Your task to perform on an android device: Search for seafood restaurants on Google Maps Image 0: 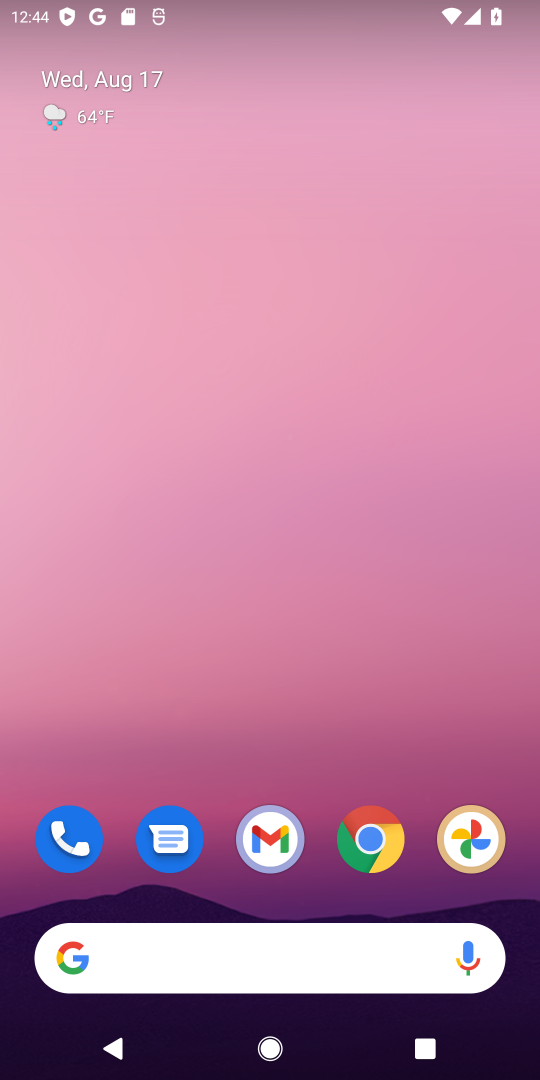
Step 0: drag from (244, 971) to (329, 244)
Your task to perform on an android device: Search for seafood restaurants on Google Maps Image 1: 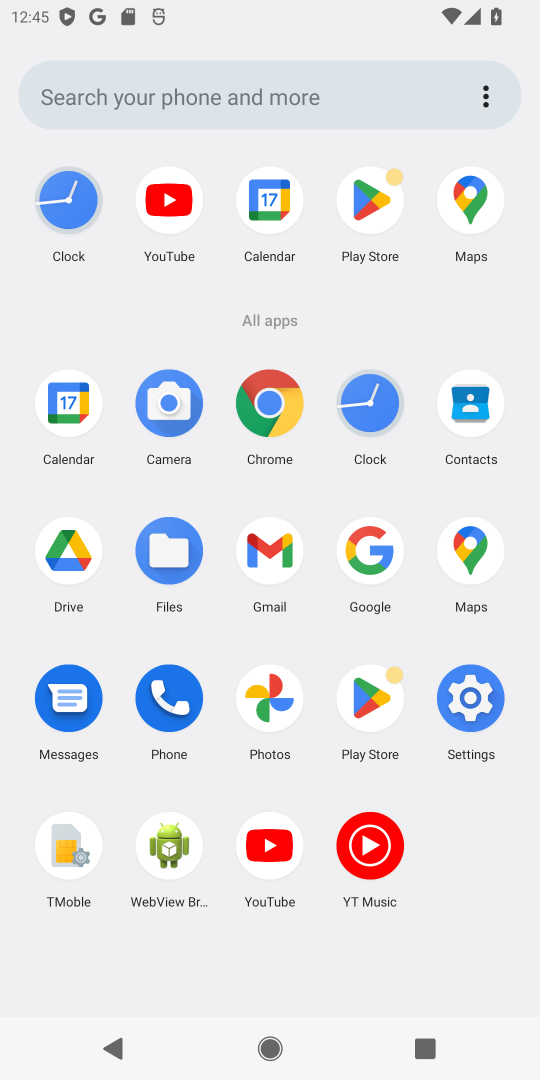
Step 1: click (470, 192)
Your task to perform on an android device: Search for seafood restaurants on Google Maps Image 2: 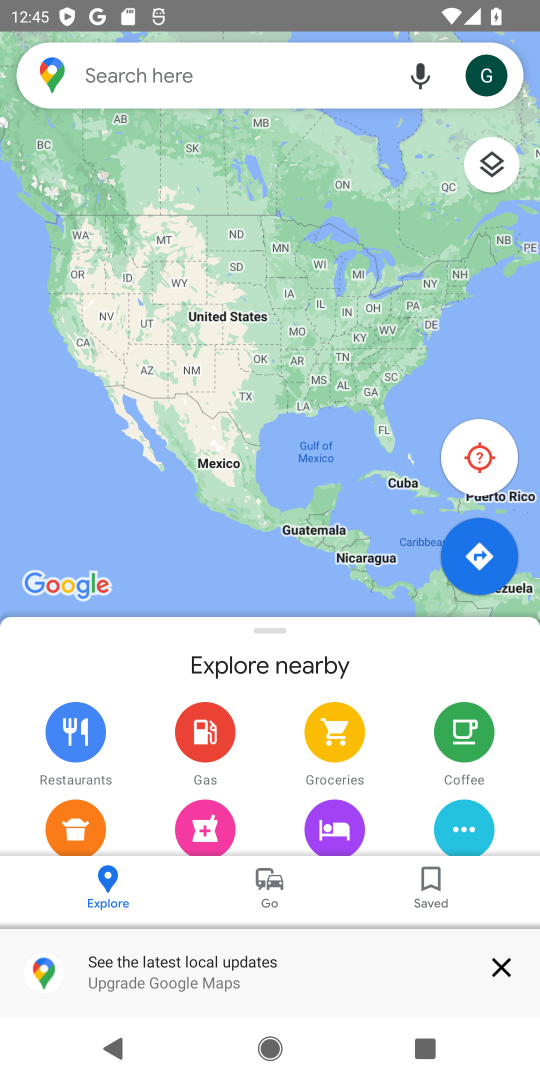
Step 2: click (291, 90)
Your task to perform on an android device: Search for seafood restaurants on Google Maps Image 3: 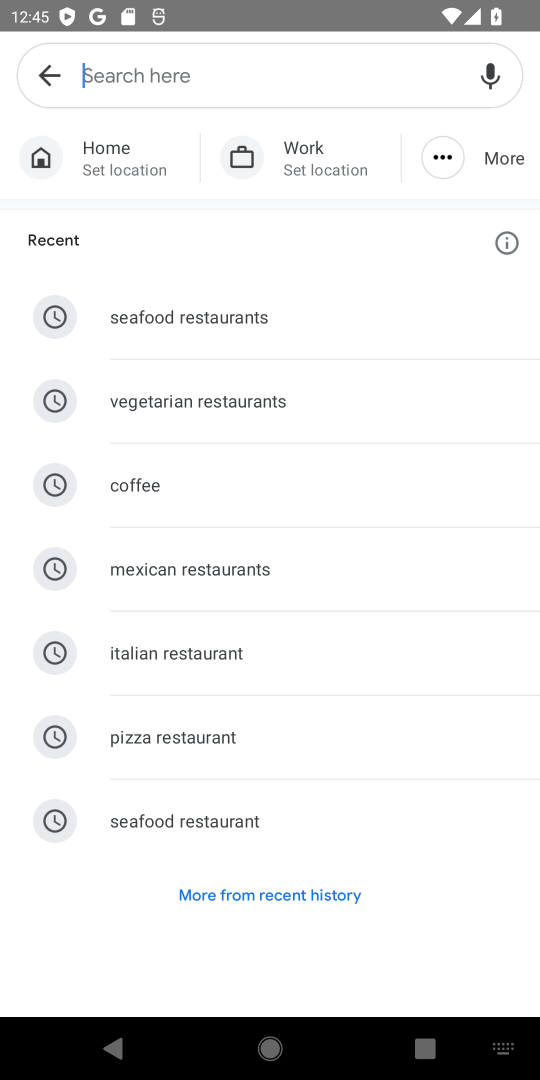
Step 3: type "seafood restaurants"
Your task to perform on an android device: Search for seafood restaurants on Google Maps Image 4: 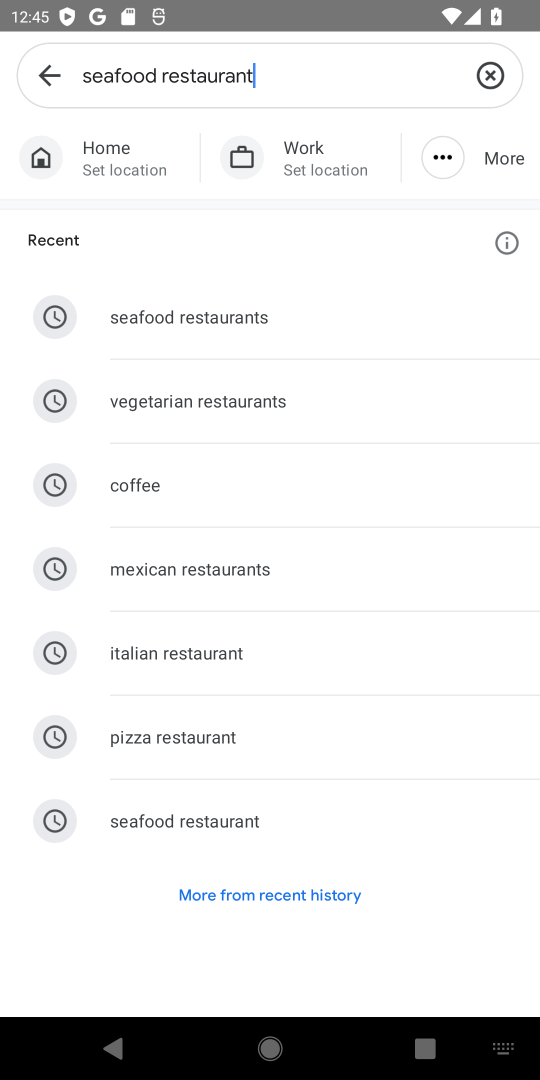
Step 4: type ""
Your task to perform on an android device: Search for seafood restaurants on Google Maps Image 5: 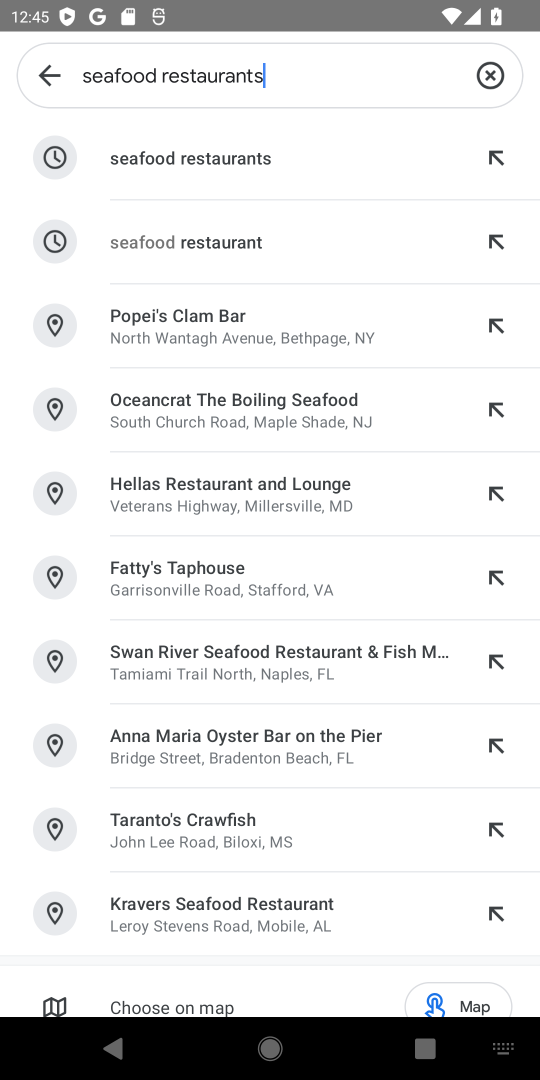
Step 5: click (209, 152)
Your task to perform on an android device: Search for seafood restaurants on Google Maps Image 6: 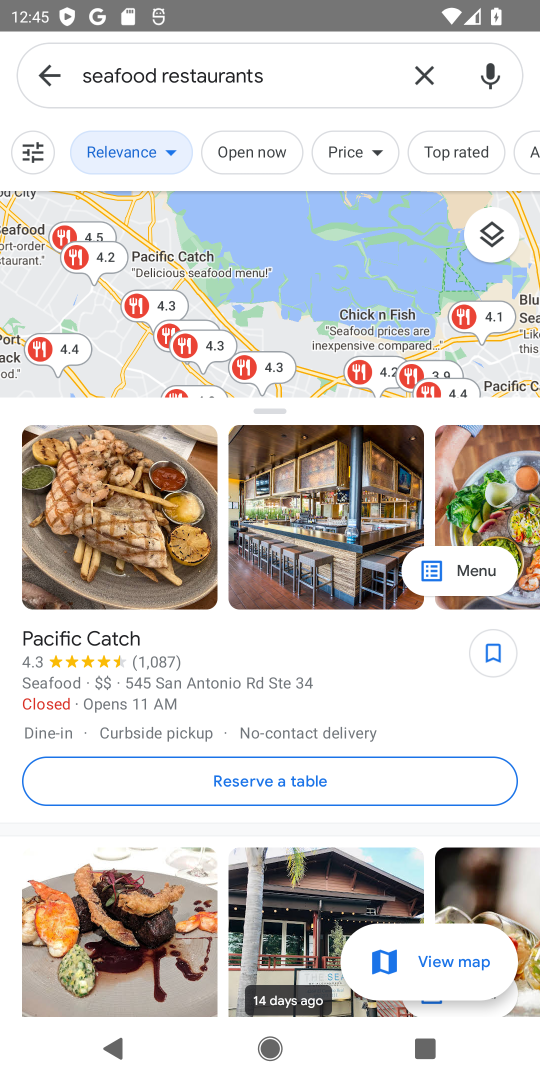
Step 6: task complete